Your task to perform on an android device: show emergency info Image 0: 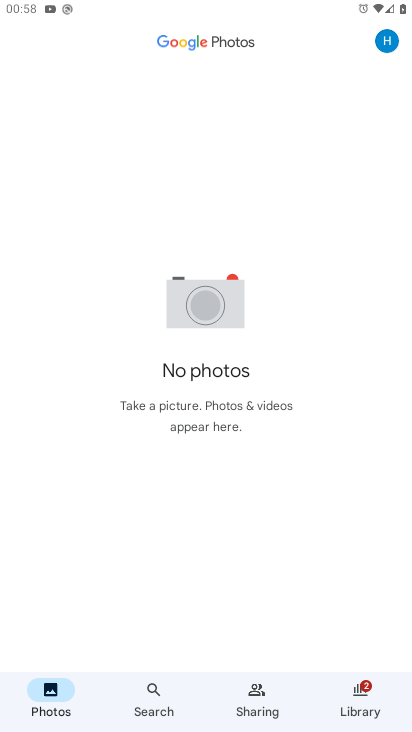
Step 0: press home button
Your task to perform on an android device: show emergency info Image 1: 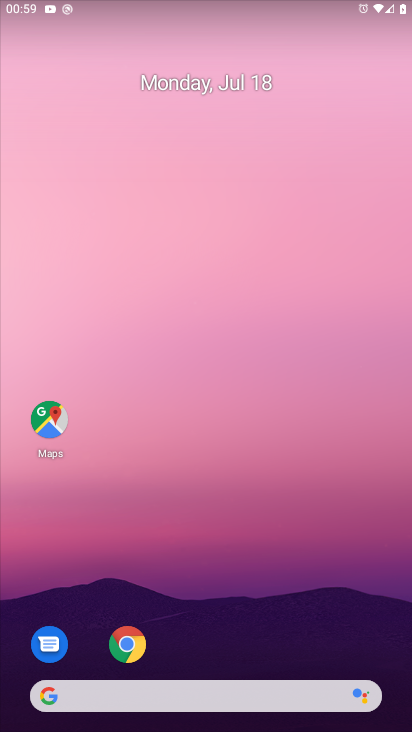
Step 1: drag from (310, 628) to (310, 93)
Your task to perform on an android device: show emergency info Image 2: 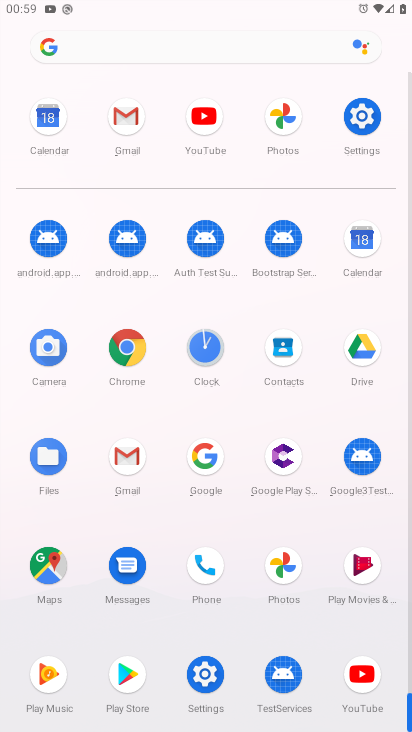
Step 2: click (351, 114)
Your task to perform on an android device: show emergency info Image 3: 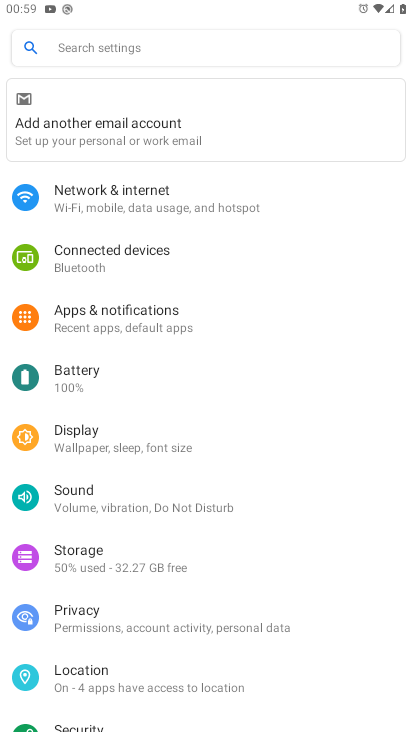
Step 3: drag from (204, 704) to (299, 153)
Your task to perform on an android device: show emergency info Image 4: 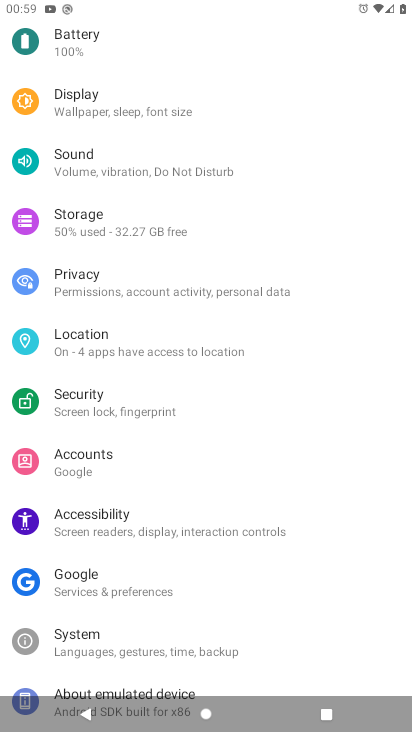
Step 4: drag from (206, 675) to (215, 290)
Your task to perform on an android device: show emergency info Image 5: 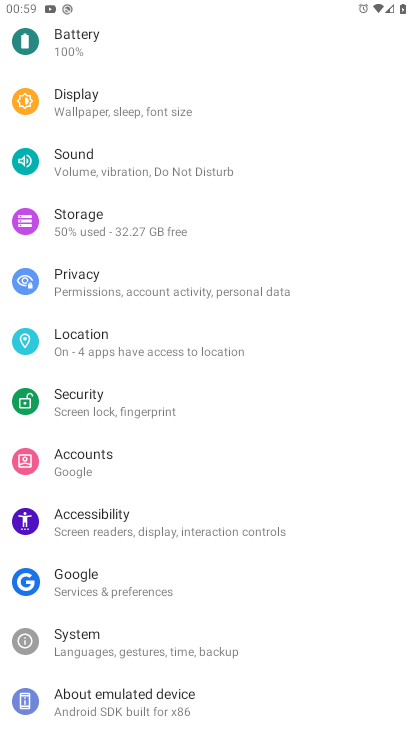
Step 5: click (149, 697)
Your task to perform on an android device: show emergency info Image 6: 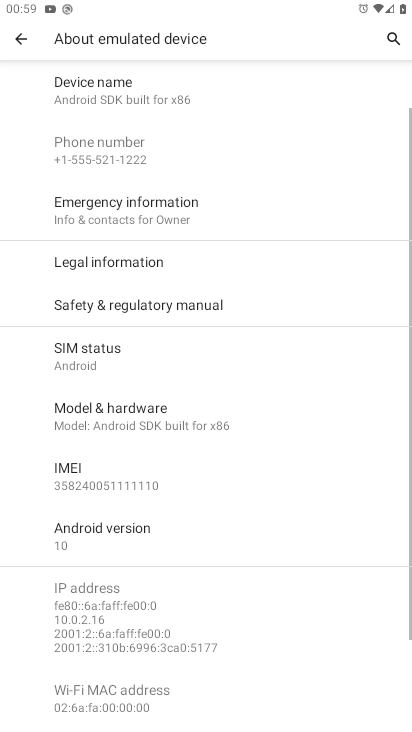
Step 6: click (145, 218)
Your task to perform on an android device: show emergency info Image 7: 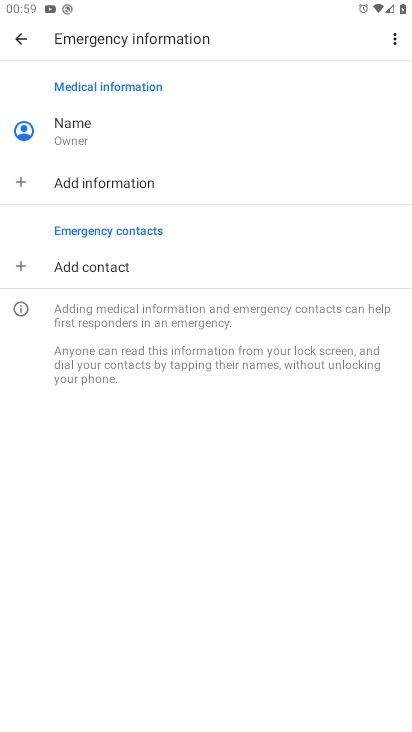
Step 7: task complete